Your task to perform on an android device: open app "WhatsApp Messenger" (install if not already installed), go to login, and select forgot password Image 0: 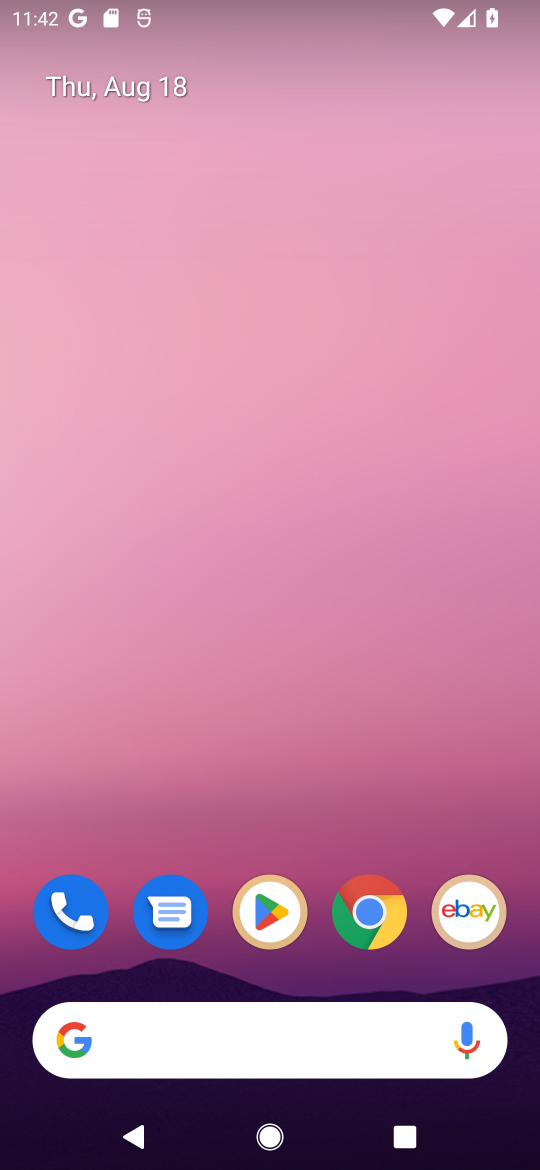
Step 0: click (277, 909)
Your task to perform on an android device: open app "WhatsApp Messenger" (install if not already installed), go to login, and select forgot password Image 1: 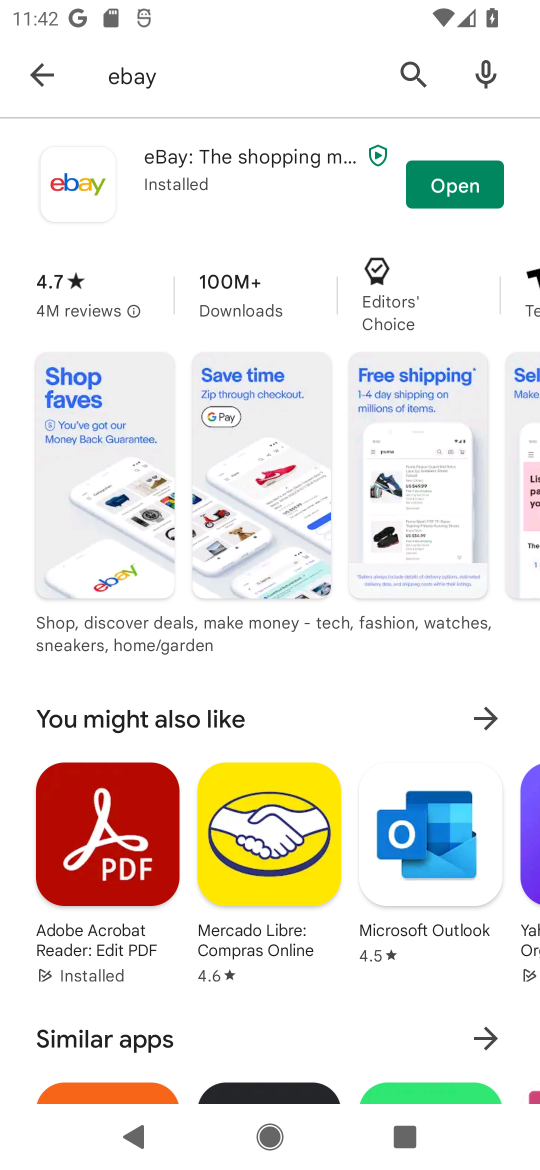
Step 1: click (409, 88)
Your task to perform on an android device: open app "WhatsApp Messenger" (install if not already installed), go to login, and select forgot password Image 2: 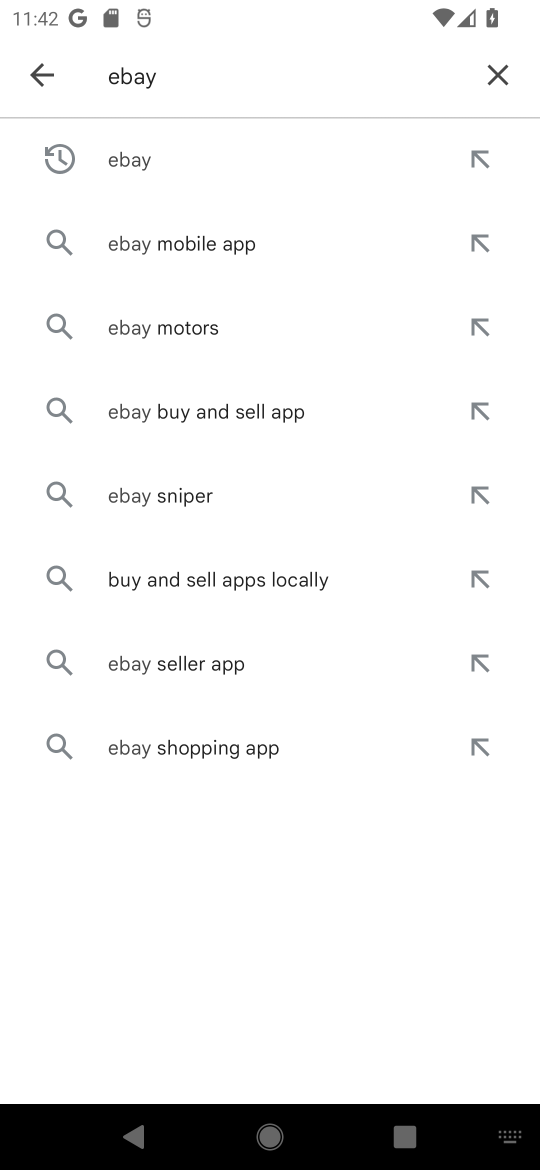
Step 2: click (497, 59)
Your task to perform on an android device: open app "WhatsApp Messenger" (install if not already installed), go to login, and select forgot password Image 3: 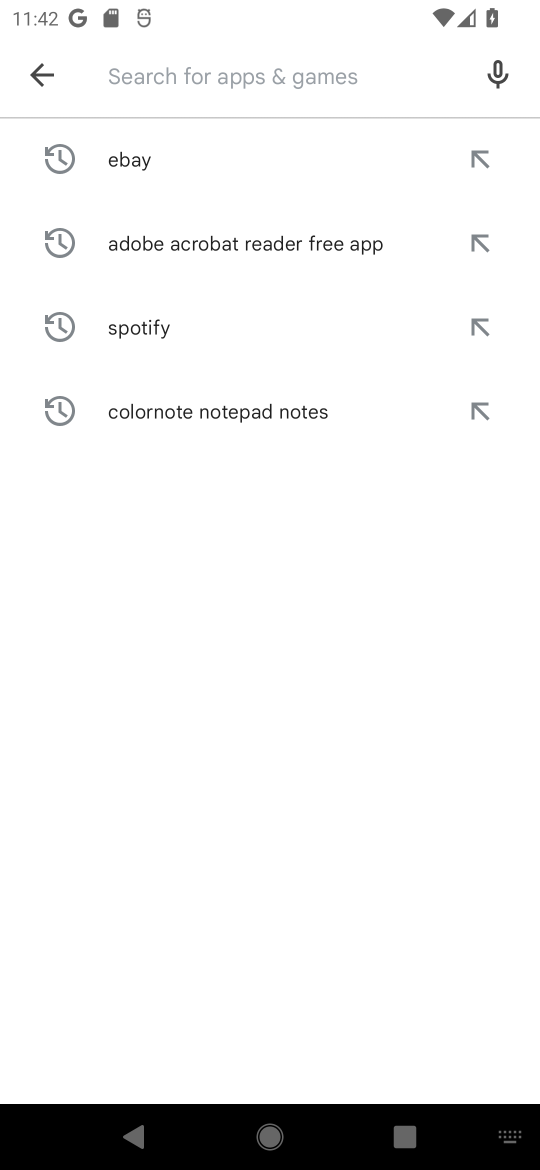
Step 3: click (202, 85)
Your task to perform on an android device: open app "WhatsApp Messenger" (install if not already installed), go to login, and select forgot password Image 4: 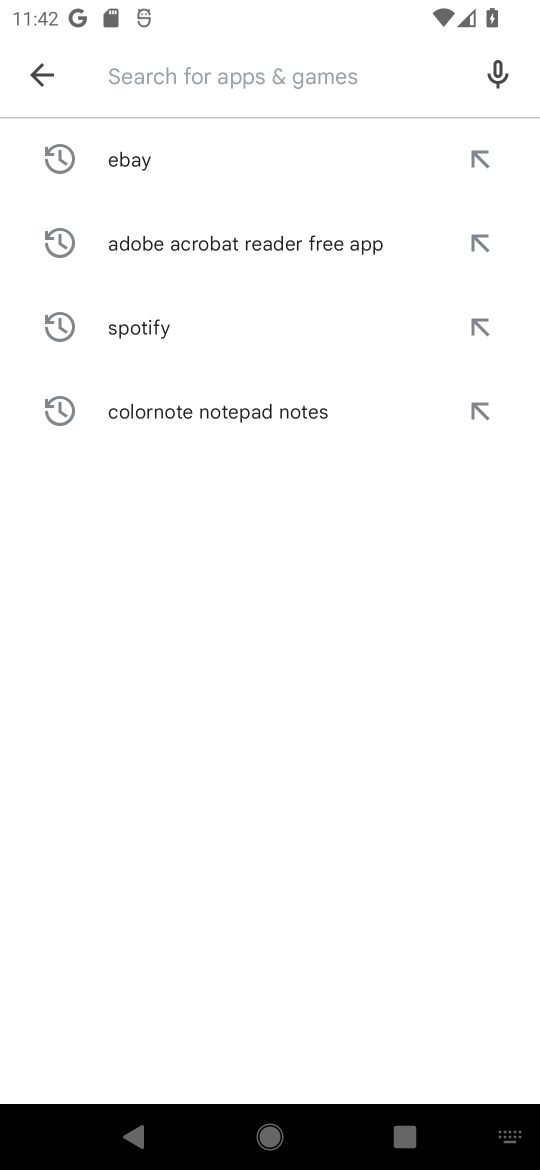
Step 4: type "WhatsApp Messenger"
Your task to perform on an android device: open app "WhatsApp Messenger" (install if not already installed), go to login, and select forgot password Image 5: 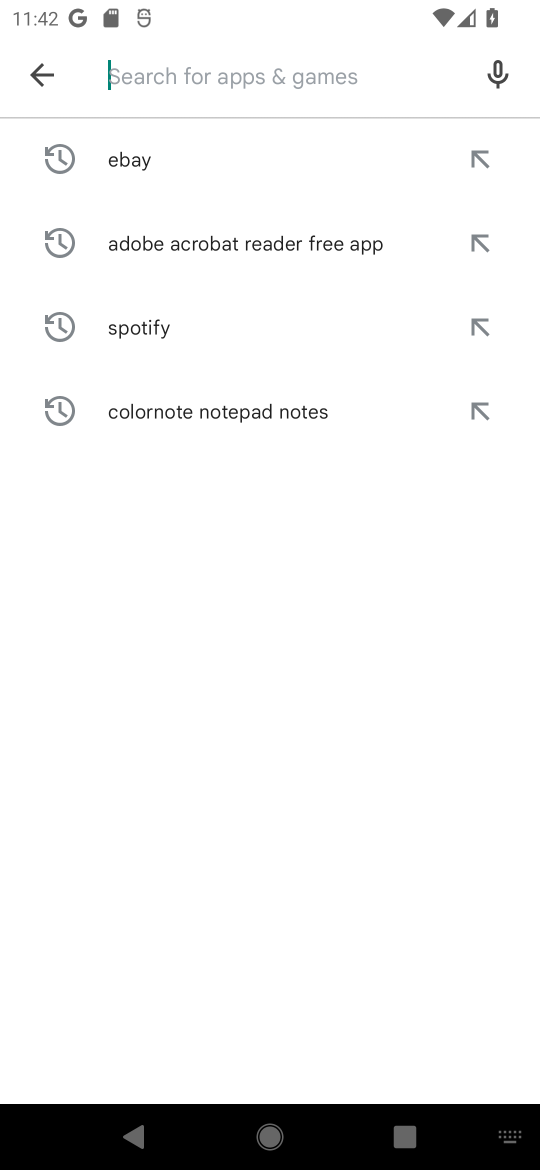
Step 5: click (229, 698)
Your task to perform on an android device: open app "WhatsApp Messenger" (install if not already installed), go to login, and select forgot password Image 6: 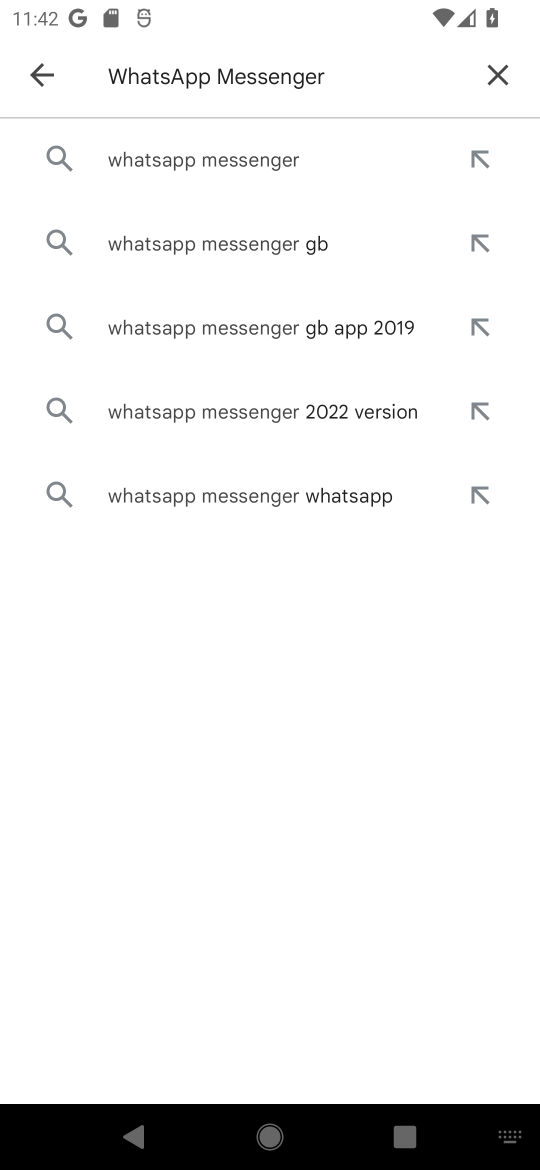
Step 6: click (175, 139)
Your task to perform on an android device: open app "WhatsApp Messenger" (install if not already installed), go to login, and select forgot password Image 7: 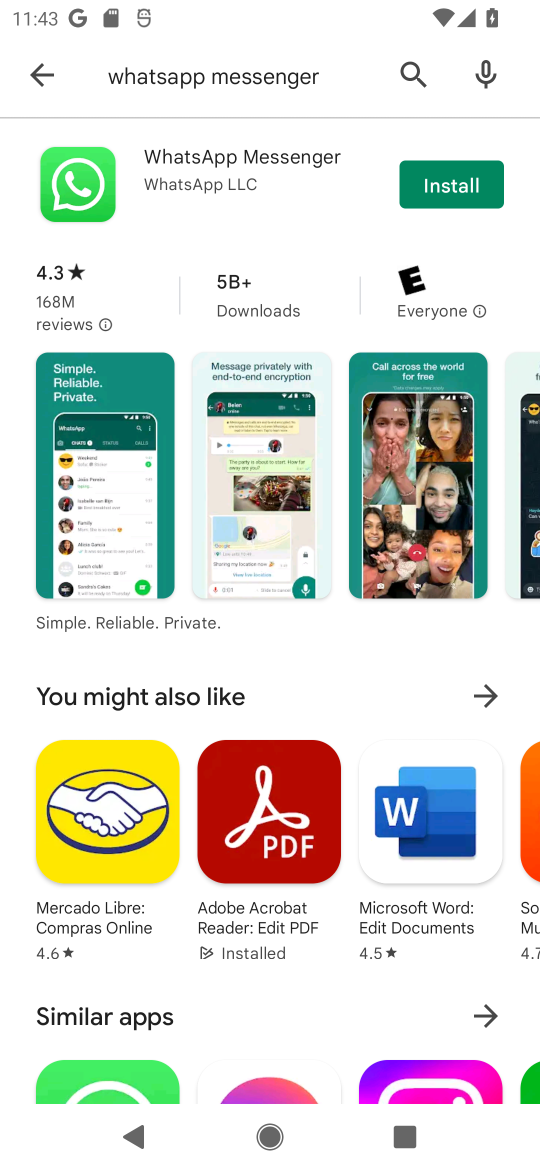
Step 7: click (459, 189)
Your task to perform on an android device: open app "WhatsApp Messenger" (install if not already installed), go to login, and select forgot password Image 8: 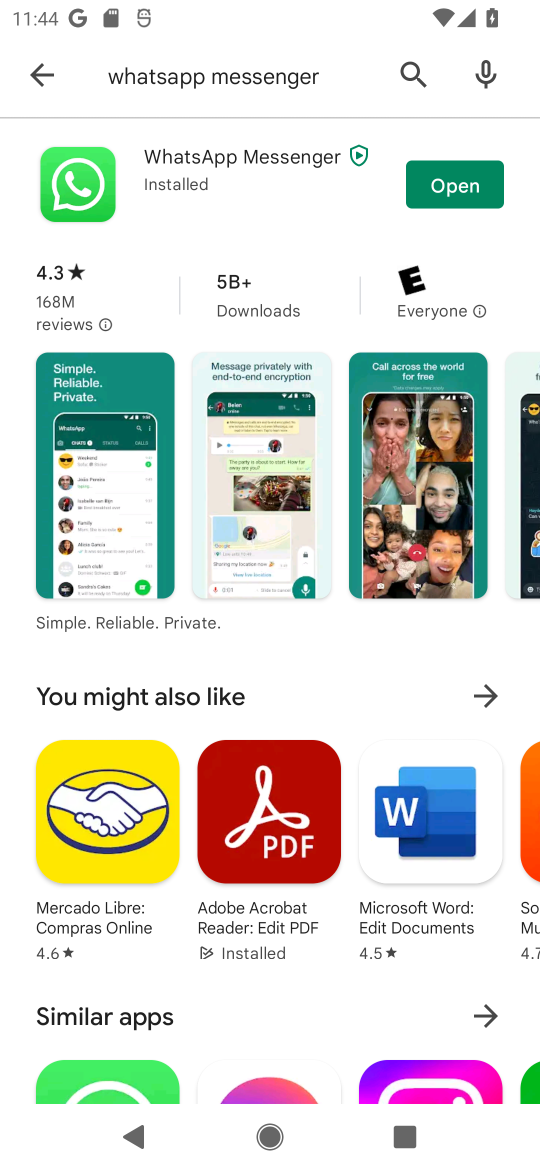
Step 8: click (459, 189)
Your task to perform on an android device: open app "WhatsApp Messenger" (install if not already installed), go to login, and select forgot password Image 9: 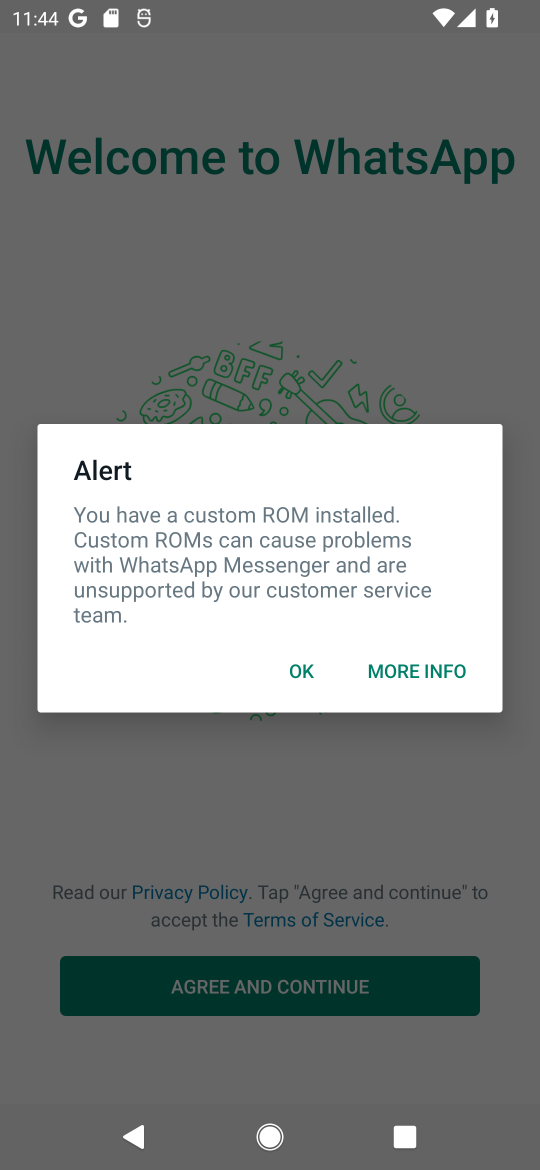
Step 9: click (294, 661)
Your task to perform on an android device: open app "WhatsApp Messenger" (install if not already installed), go to login, and select forgot password Image 10: 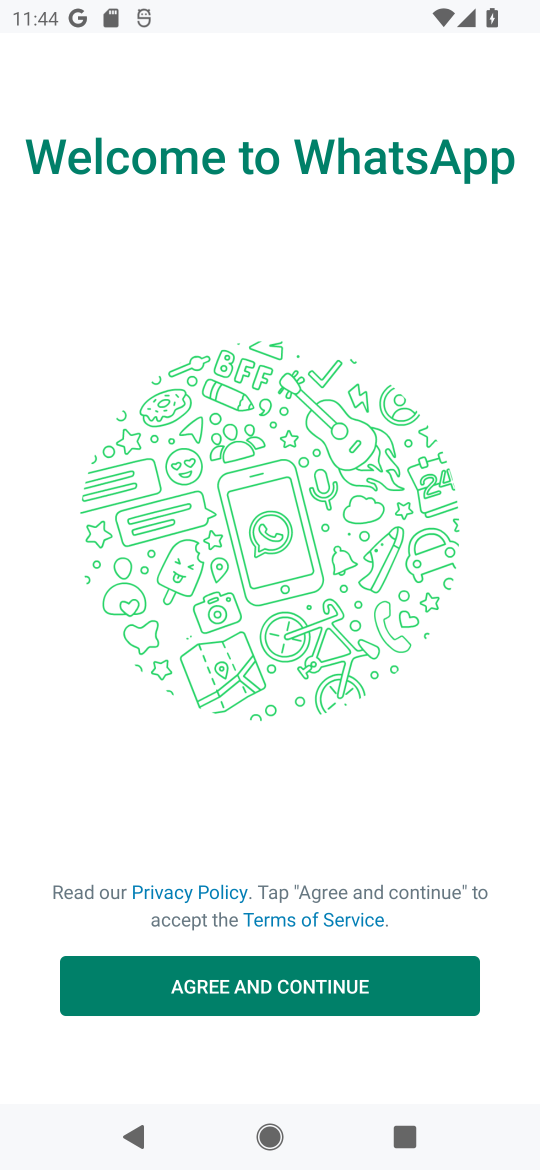
Step 10: click (221, 983)
Your task to perform on an android device: open app "WhatsApp Messenger" (install if not already installed), go to login, and select forgot password Image 11: 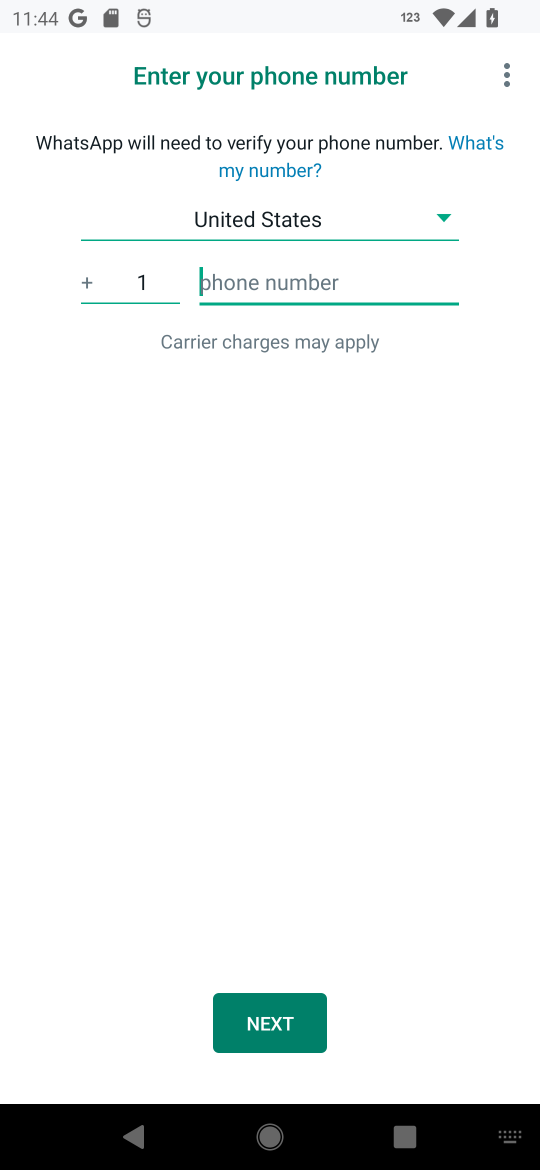
Step 11: task complete